Your task to perform on an android device: set an alarm Image 0: 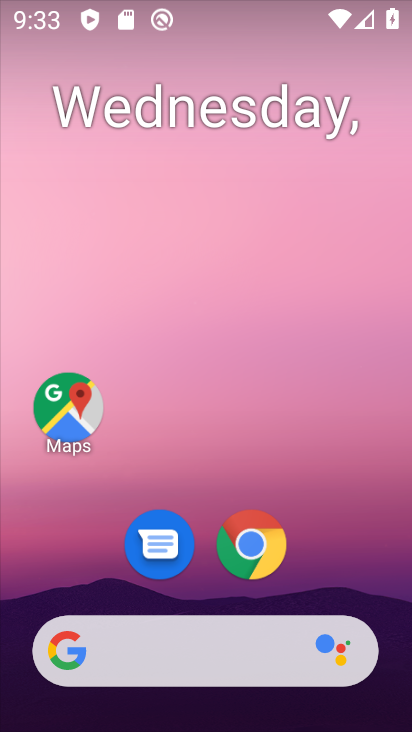
Step 0: drag from (386, 578) to (293, 71)
Your task to perform on an android device: set an alarm Image 1: 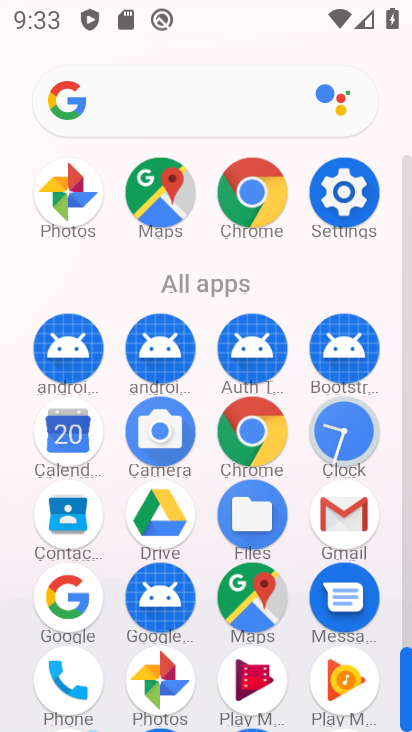
Step 1: click (345, 428)
Your task to perform on an android device: set an alarm Image 2: 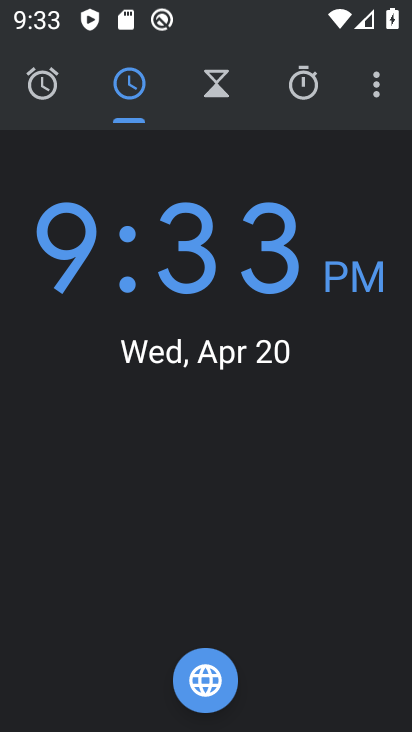
Step 2: click (31, 80)
Your task to perform on an android device: set an alarm Image 3: 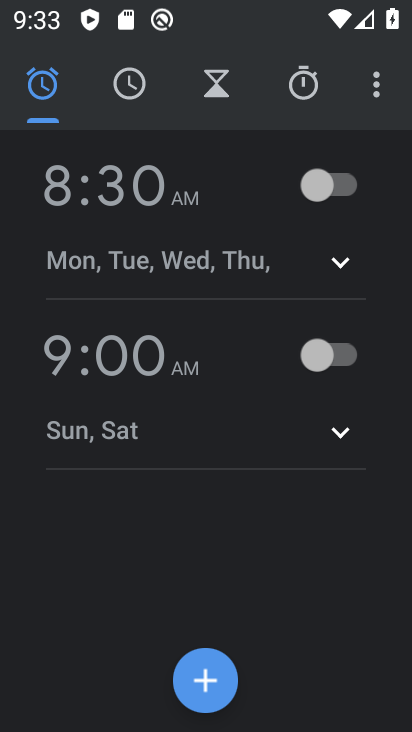
Step 3: click (196, 683)
Your task to perform on an android device: set an alarm Image 4: 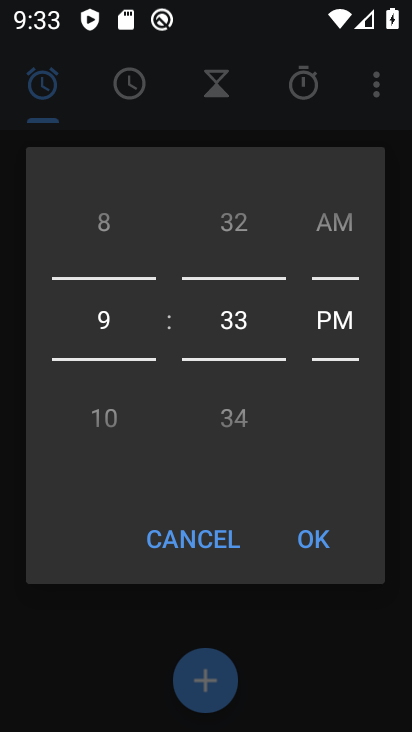
Step 4: drag from (120, 415) to (121, 274)
Your task to perform on an android device: set an alarm Image 5: 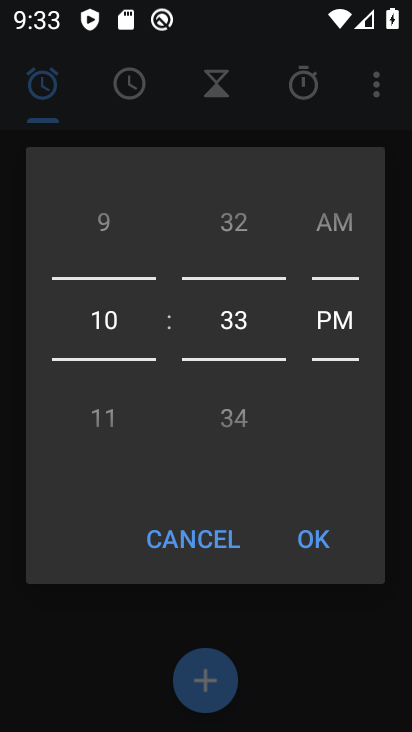
Step 5: click (329, 546)
Your task to perform on an android device: set an alarm Image 6: 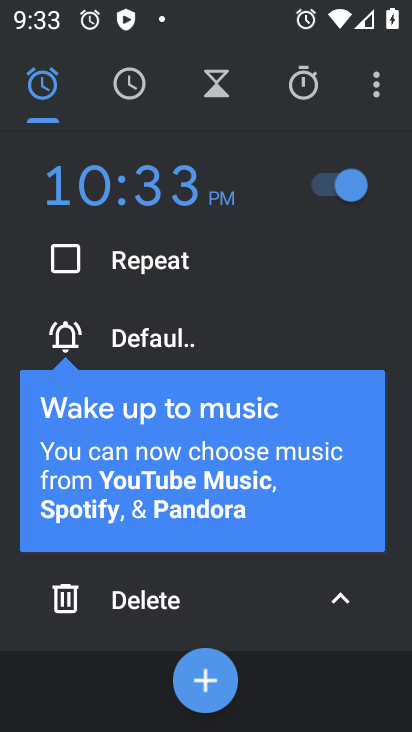
Step 6: task complete